Your task to perform on an android device: star an email in the gmail app Image 0: 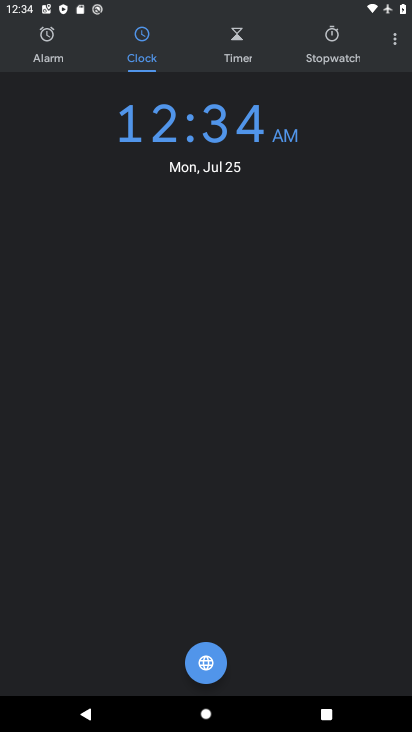
Step 0: press home button
Your task to perform on an android device: star an email in the gmail app Image 1: 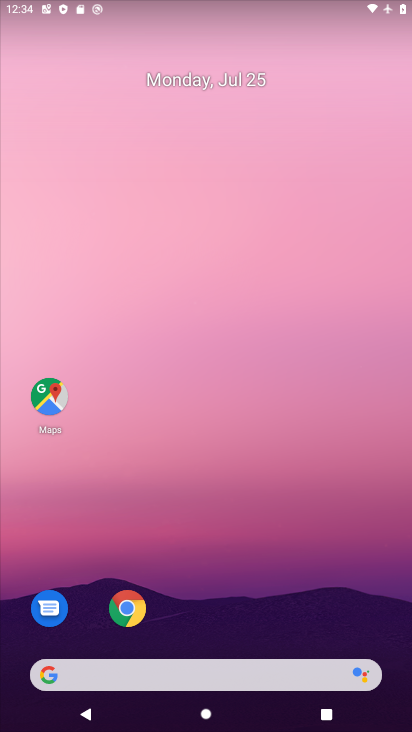
Step 1: drag from (250, 672) to (363, 32)
Your task to perform on an android device: star an email in the gmail app Image 2: 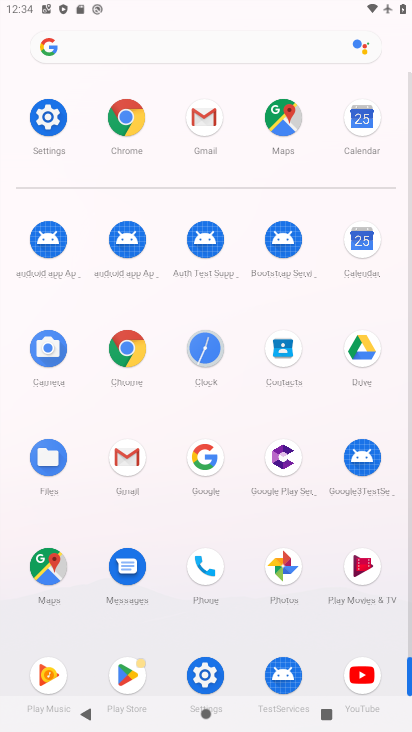
Step 2: click (113, 477)
Your task to perform on an android device: star an email in the gmail app Image 3: 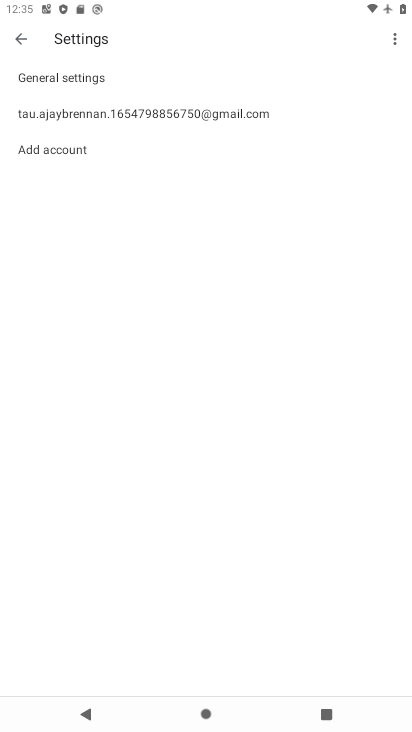
Step 3: click (26, 51)
Your task to perform on an android device: star an email in the gmail app Image 4: 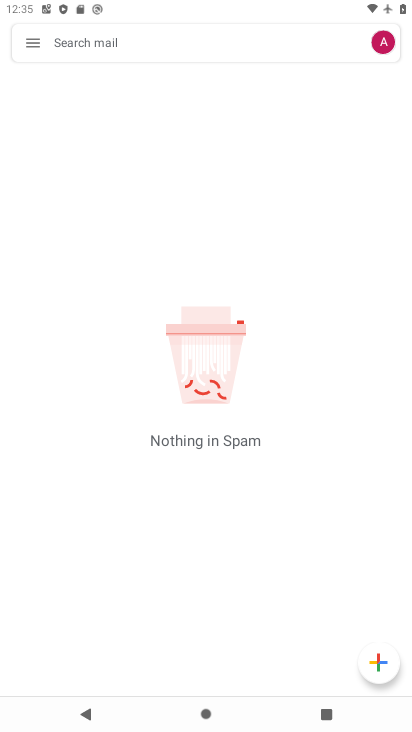
Step 4: click (26, 45)
Your task to perform on an android device: star an email in the gmail app Image 5: 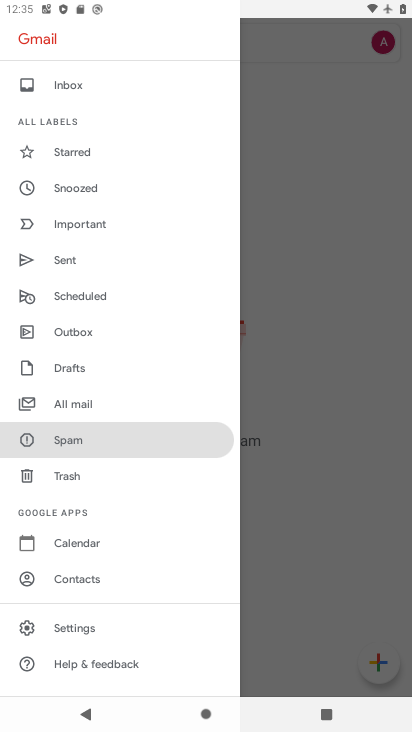
Step 5: click (94, 409)
Your task to perform on an android device: star an email in the gmail app Image 6: 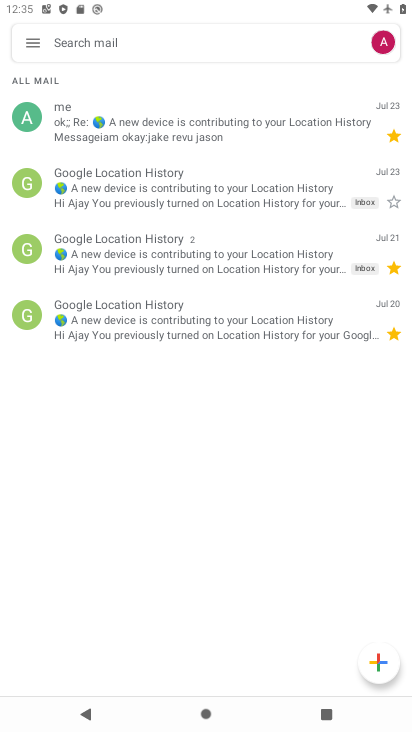
Step 6: click (397, 212)
Your task to perform on an android device: star an email in the gmail app Image 7: 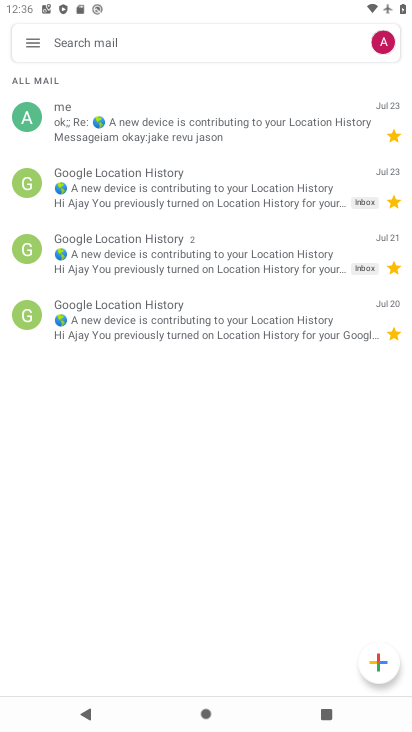
Step 7: task complete